Your task to perform on an android device: turn on the 24-hour format for clock Image 0: 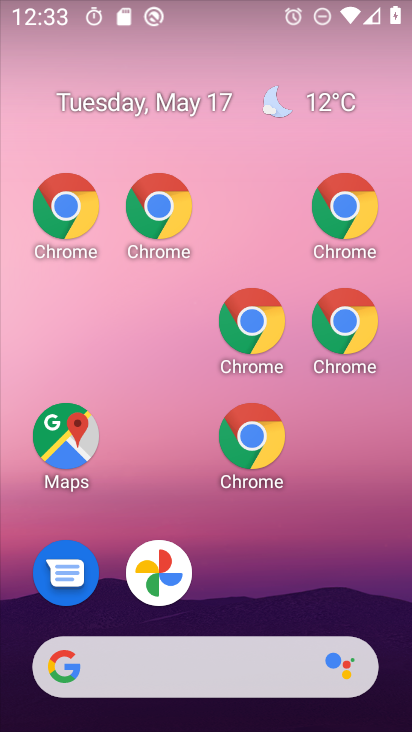
Step 0: drag from (335, 591) to (249, 81)
Your task to perform on an android device: turn on the 24-hour format for clock Image 1: 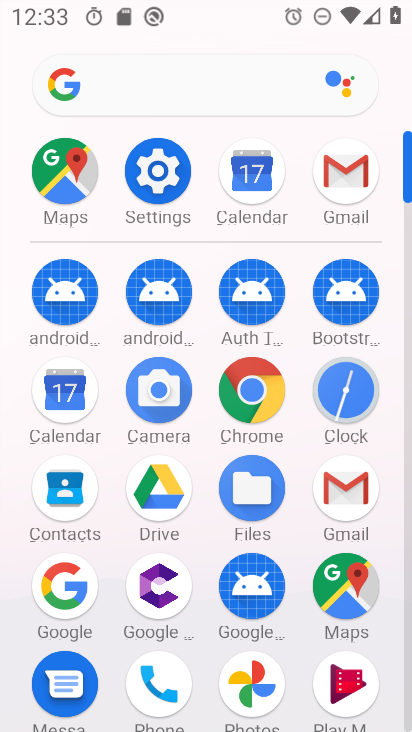
Step 1: click (323, 397)
Your task to perform on an android device: turn on the 24-hour format for clock Image 2: 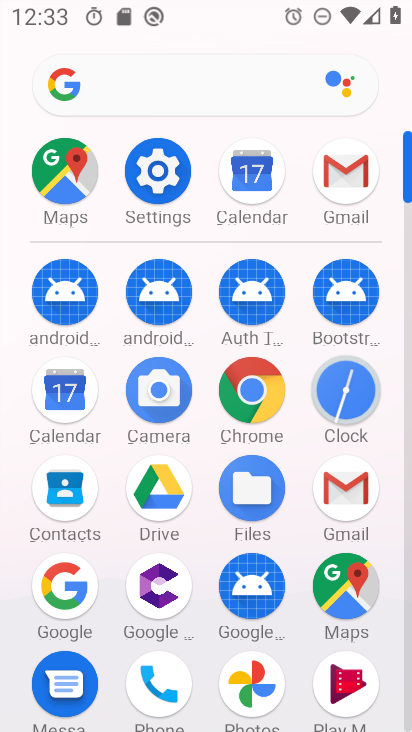
Step 2: click (330, 391)
Your task to perform on an android device: turn on the 24-hour format for clock Image 3: 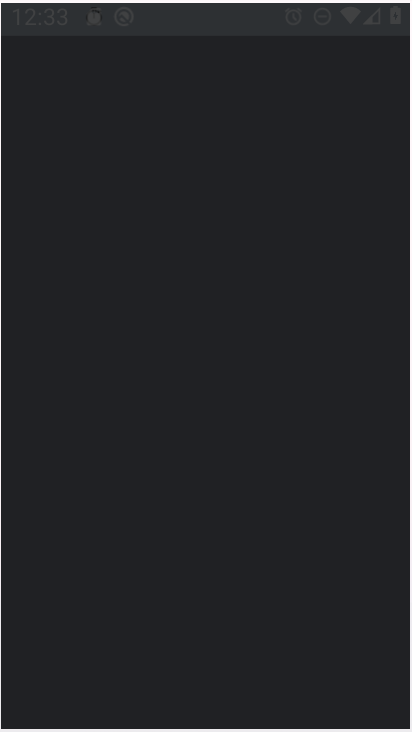
Step 3: click (344, 385)
Your task to perform on an android device: turn on the 24-hour format for clock Image 4: 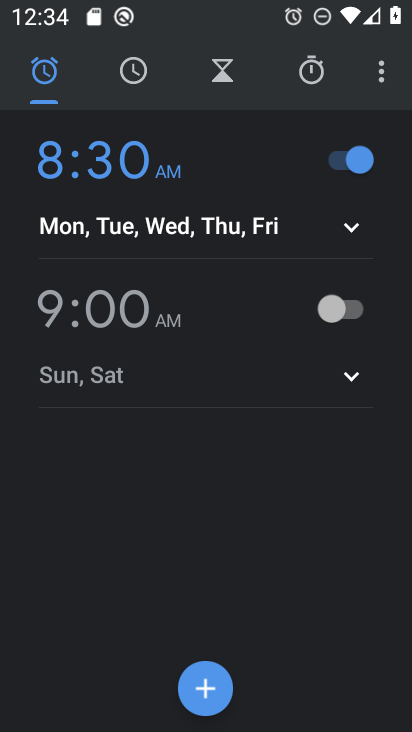
Step 4: click (373, 72)
Your task to perform on an android device: turn on the 24-hour format for clock Image 5: 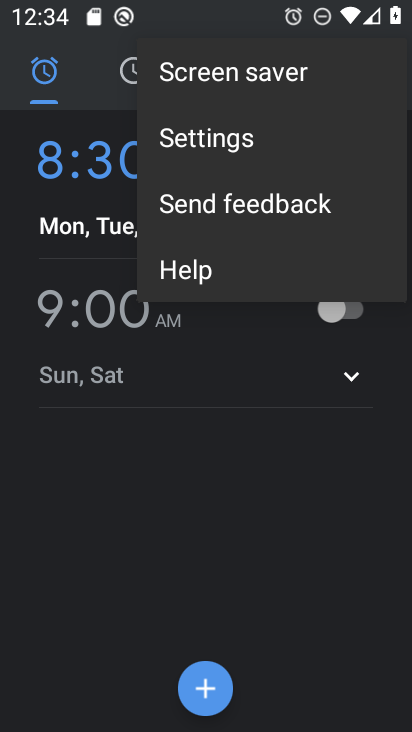
Step 5: click (236, 142)
Your task to perform on an android device: turn on the 24-hour format for clock Image 6: 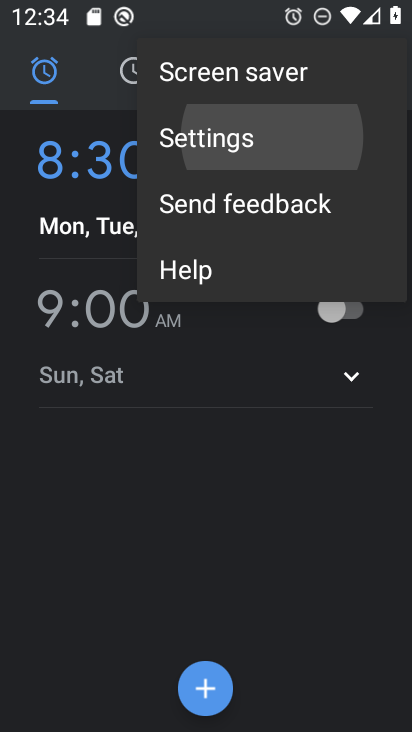
Step 6: click (234, 141)
Your task to perform on an android device: turn on the 24-hour format for clock Image 7: 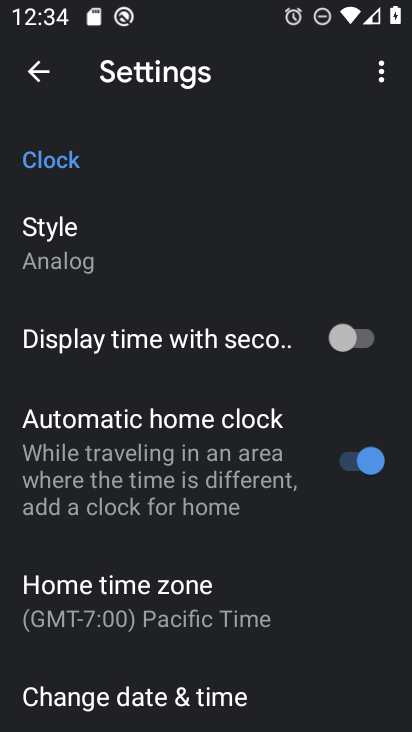
Step 7: drag from (267, 620) to (315, 219)
Your task to perform on an android device: turn on the 24-hour format for clock Image 8: 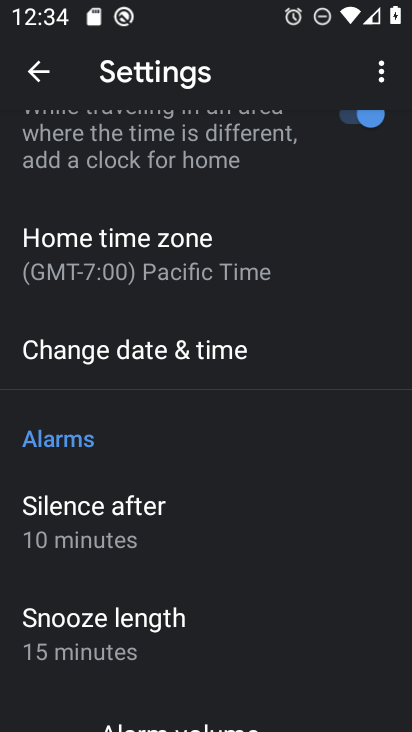
Step 8: drag from (174, 277) to (256, 524)
Your task to perform on an android device: turn on the 24-hour format for clock Image 9: 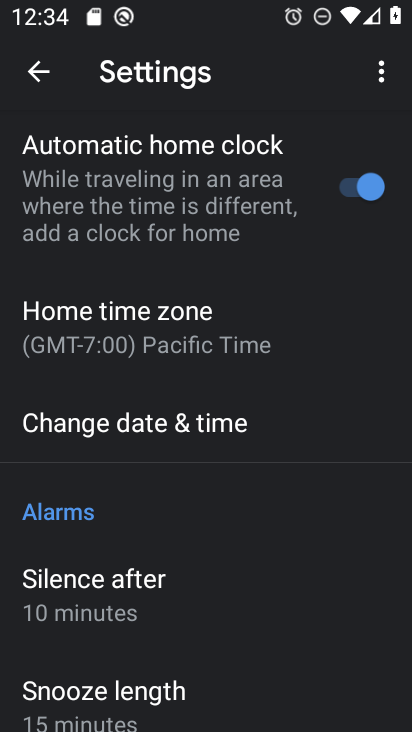
Step 9: click (106, 332)
Your task to perform on an android device: turn on the 24-hour format for clock Image 10: 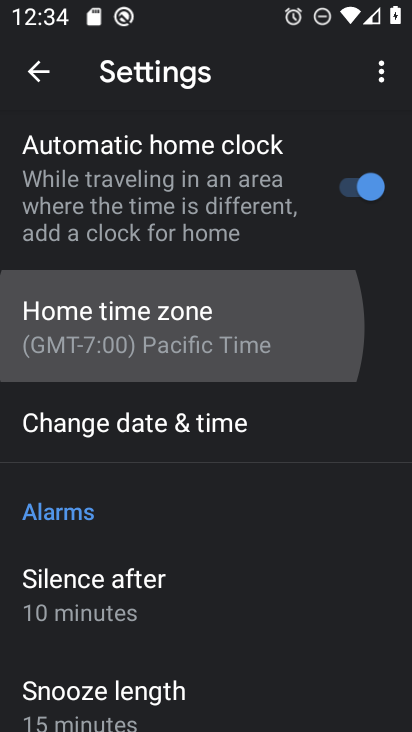
Step 10: click (109, 328)
Your task to perform on an android device: turn on the 24-hour format for clock Image 11: 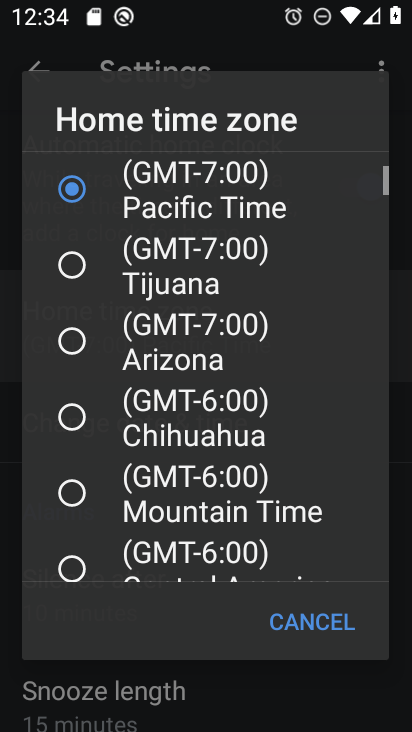
Step 11: click (120, 318)
Your task to perform on an android device: turn on the 24-hour format for clock Image 12: 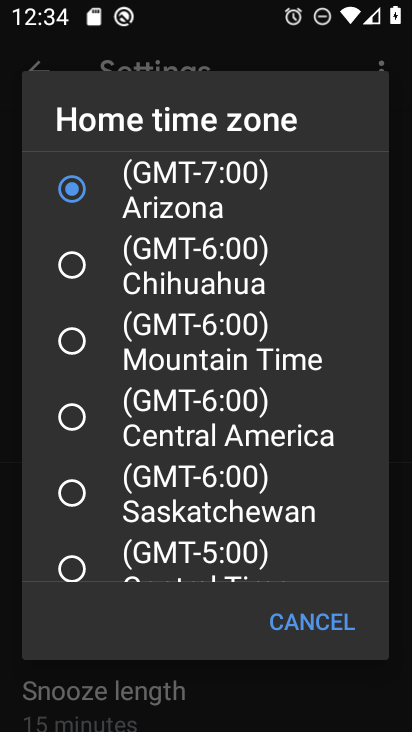
Step 12: click (294, 598)
Your task to perform on an android device: turn on the 24-hour format for clock Image 13: 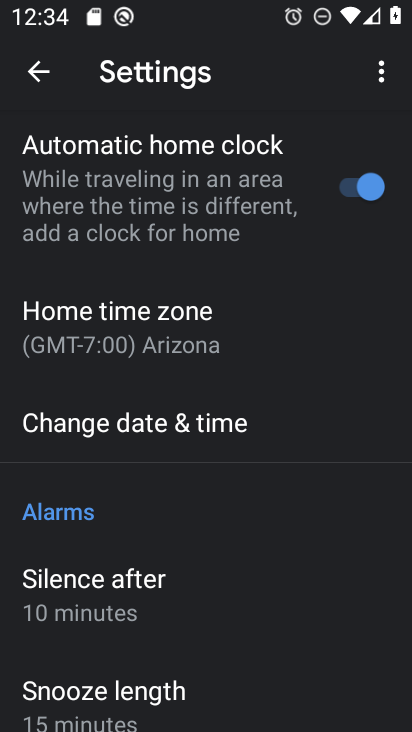
Step 13: click (138, 453)
Your task to perform on an android device: turn on the 24-hour format for clock Image 14: 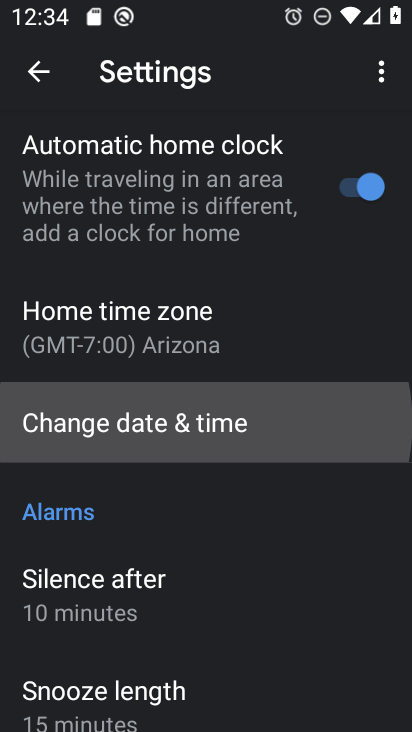
Step 14: click (136, 424)
Your task to perform on an android device: turn on the 24-hour format for clock Image 15: 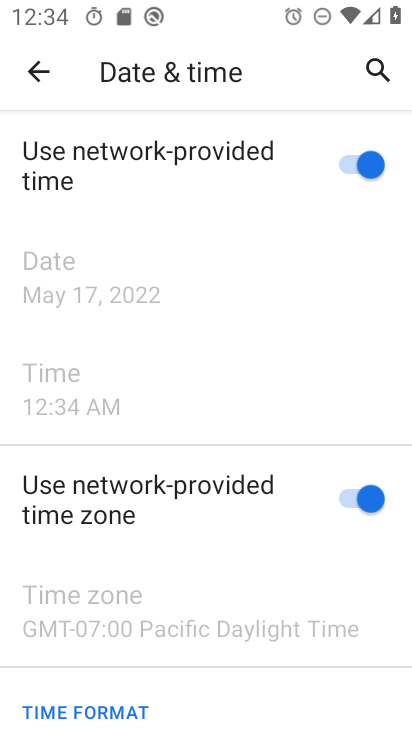
Step 15: click (363, 498)
Your task to perform on an android device: turn on the 24-hour format for clock Image 16: 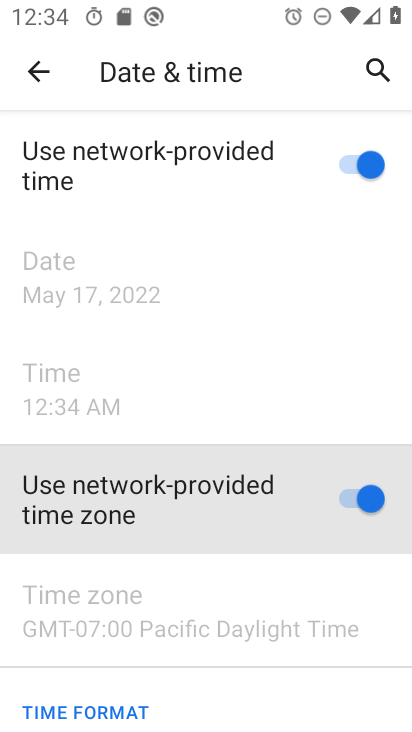
Step 16: click (363, 539)
Your task to perform on an android device: turn on the 24-hour format for clock Image 17: 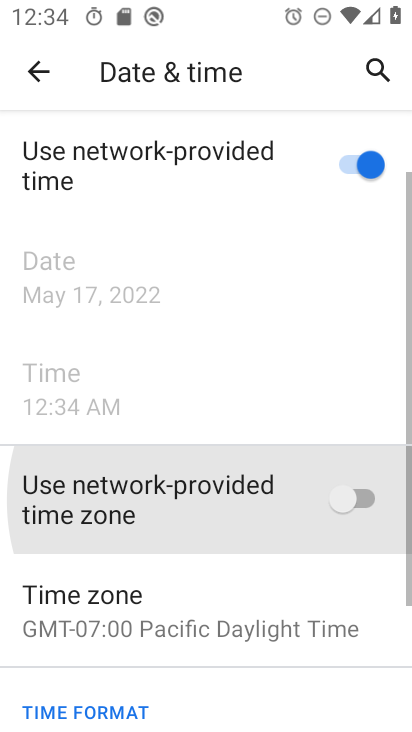
Step 17: drag from (362, 551) to (406, 357)
Your task to perform on an android device: turn on the 24-hour format for clock Image 18: 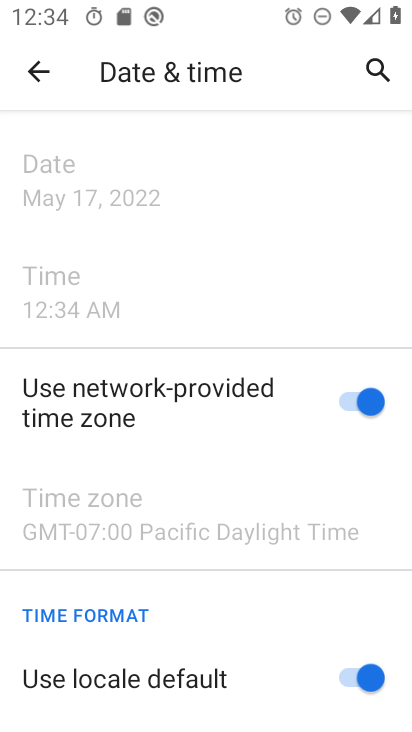
Step 18: drag from (344, 640) to (410, 554)
Your task to perform on an android device: turn on the 24-hour format for clock Image 19: 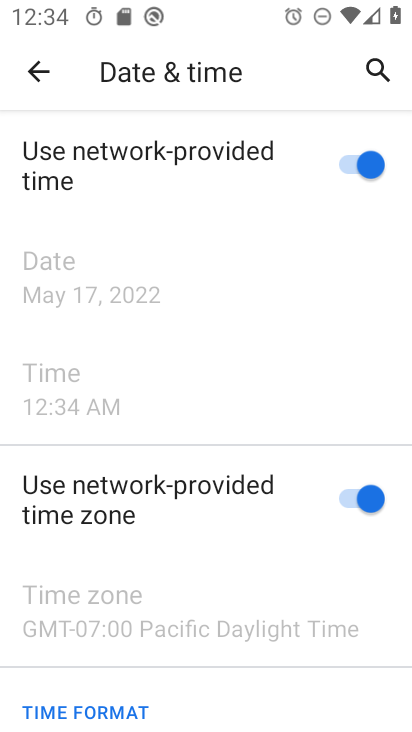
Step 19: click (375, 501)
Your task to perform on an android device: turn on the 24-hour format for clock Image 20: 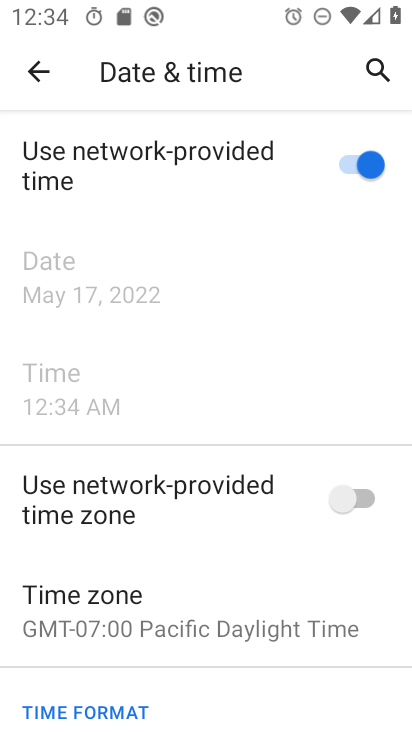
Step 20: click (363, 641)
Your task to perform on an android device: turn on the 24-hour format for clock Image 21: 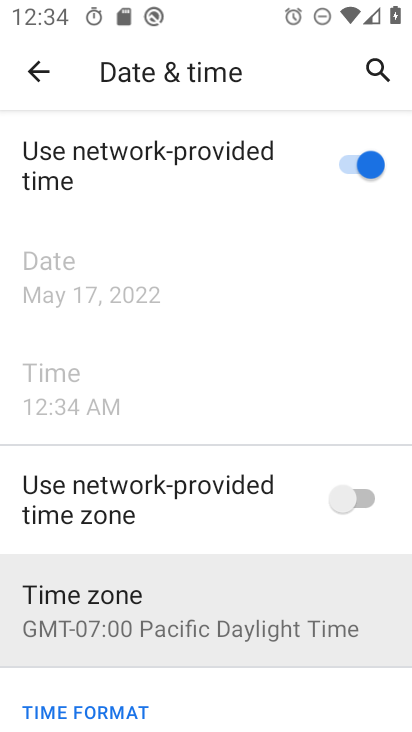
Step 21: click (378, 650)
Your task to perform on an android device: turn on the 24-hour format for clock Image 22: 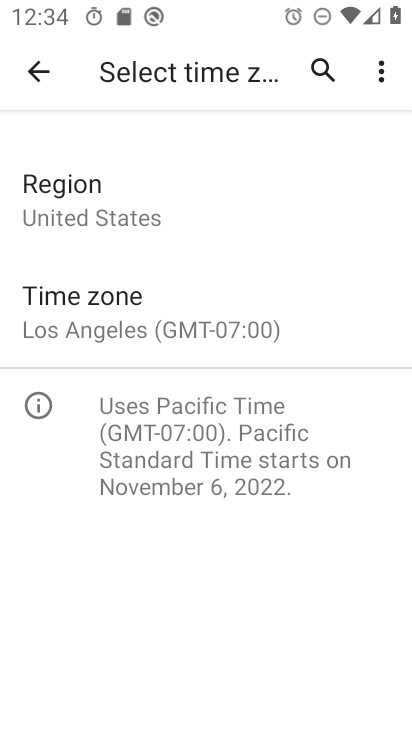
Step 22: click (42, 68)
Your task to perform on an android device: turn on the 24-hour format for clock Image 23: 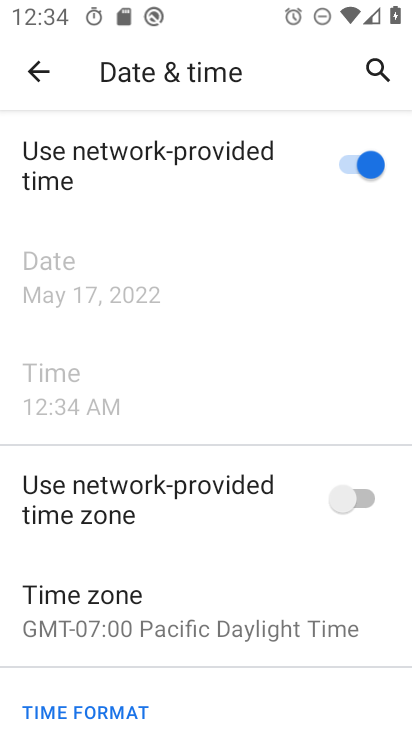
Step 23: task complete